Your task to perform on an android device: delete a single message in the gmail app Image 0: 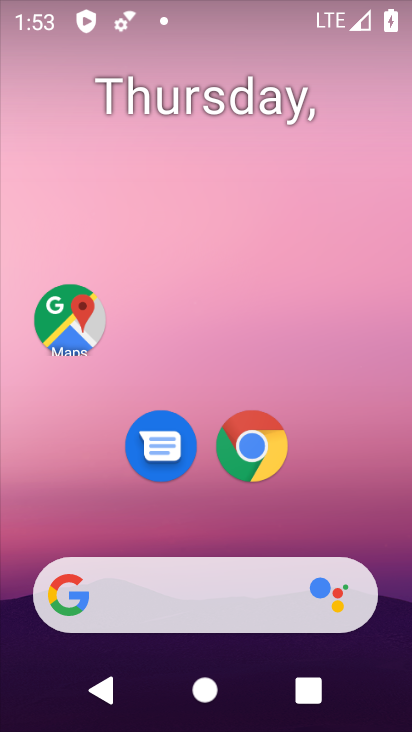
Step 0: drag from (318, 208) to (229, 302)
Your task to perform on an android device: delete a single message in the gmail app Image 1: 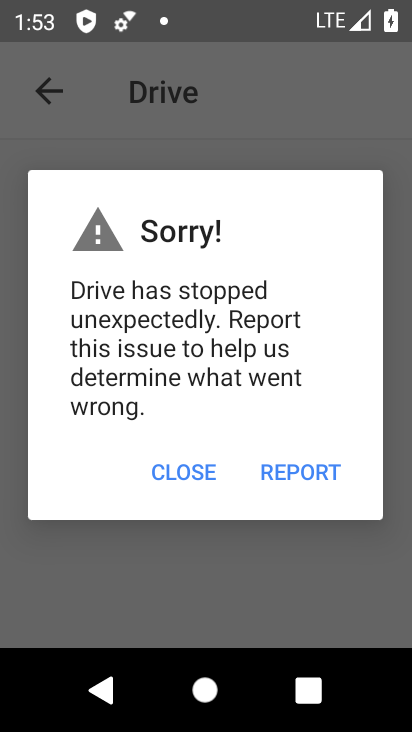
Step 1: drag from (191, 488) to (230, 303)
Your task to perform on an android device: delete a single message in the gmail app Image 2: 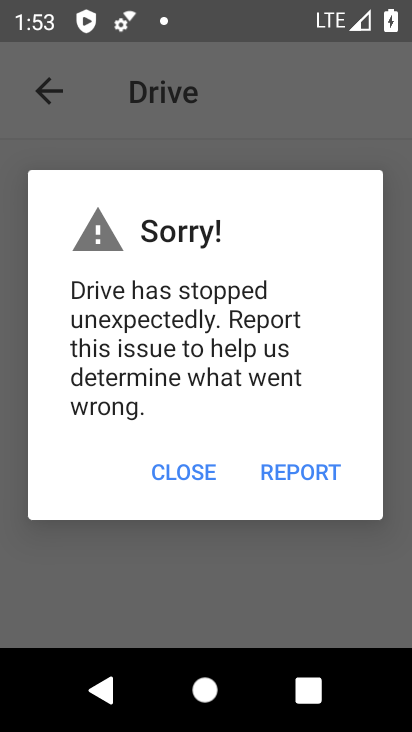
Step 2: press home button
Your task to perform on an android device: delete a single message in the gmail app Image 3: 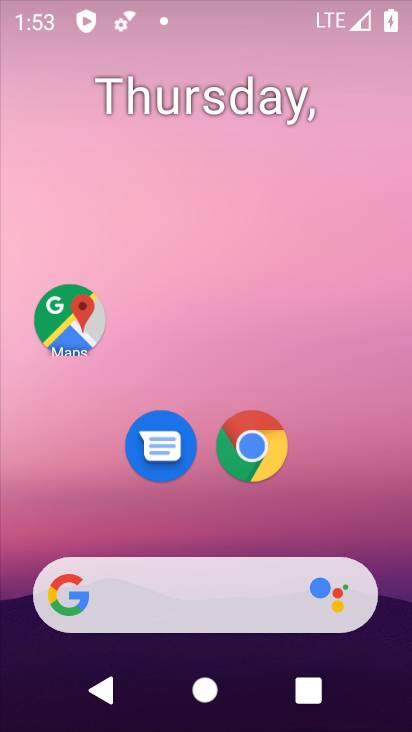
Step 3: drag from (317, 540) to (335, 163)
Your task to perform on an android device: delete a single message in the gmail app Image 4: 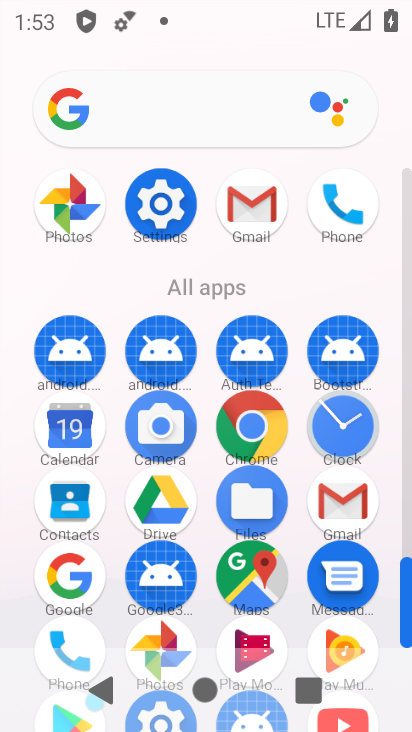
Step 4: click (319, 503)
Your task to perform on an android device: delete a single message in the gmail app Image 5: 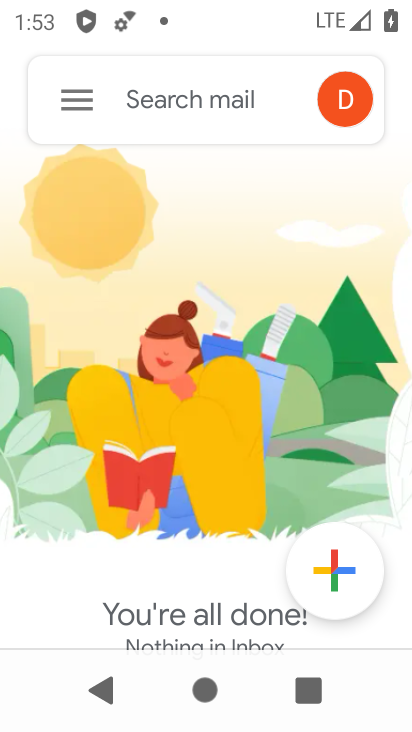
Step 5: click (75, 86)
Your task to perform on an android device: delete a single message in the gmail app Image 6: 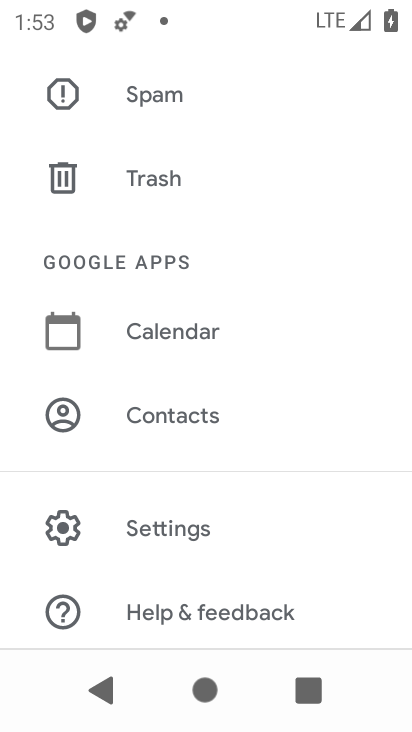
Step 6: drag from (169, 139) to (160, 473)
Your task to perform on an android device: delete a single message in the gmail app Image 7: 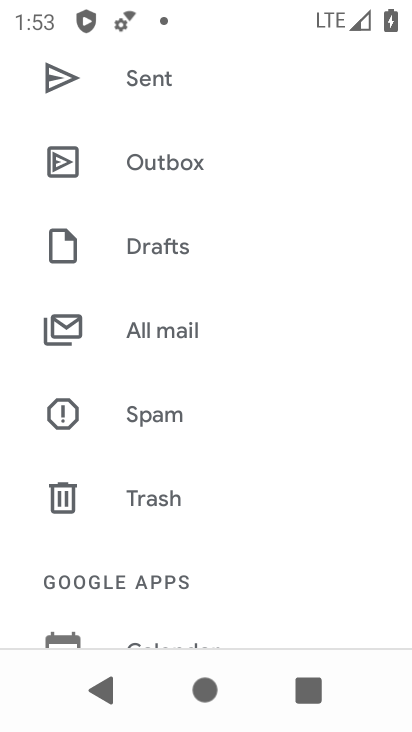
Step 7: click (155, 322)
Your task to perform on an android device: delete a single message in the gmail app Image 8: 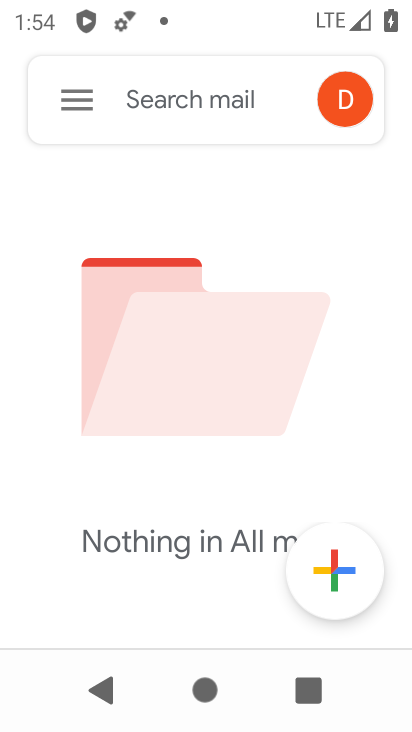
Step 8: task complete